Your task to perform on an android device: Go to CNN.com Image 0: 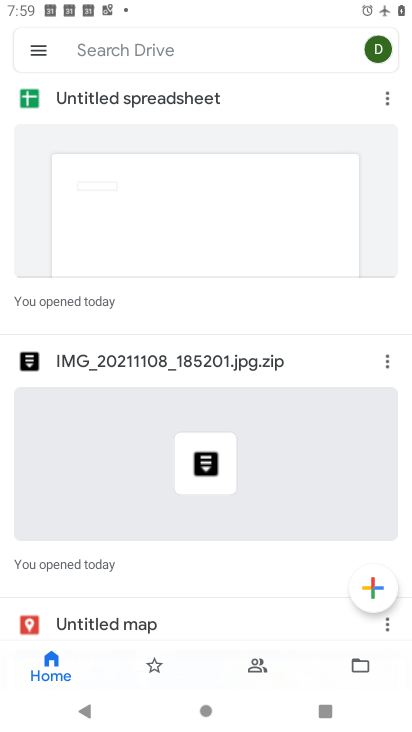
Step 0: press home button
Your task to perform on an android device: Go to CNN.com Image 1: 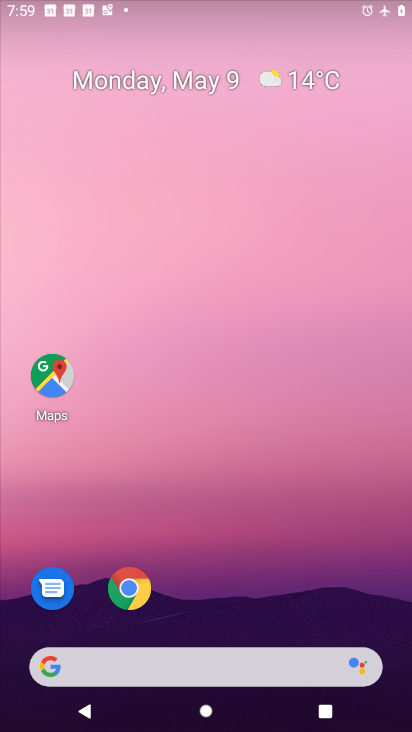
Step 1: drag from (356, 606) to (323, 1)
Your task to perform on an android device: Go to CNN.com Image 2: 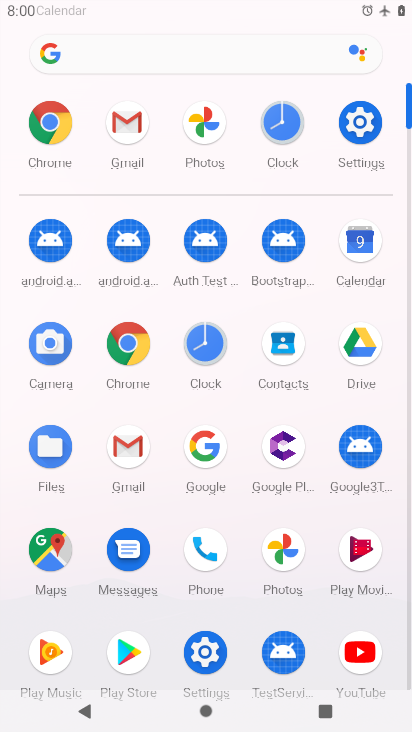
Step 2: click (120, 344)
Your task to perform on an android device: Go to CNN.com Image 3: 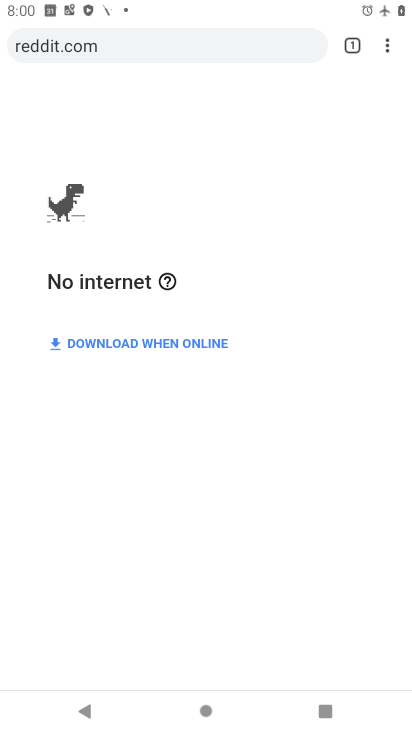
Step 3: click (320, 44)
Your task to perform on an android device: Go to CNN.com Image 4: 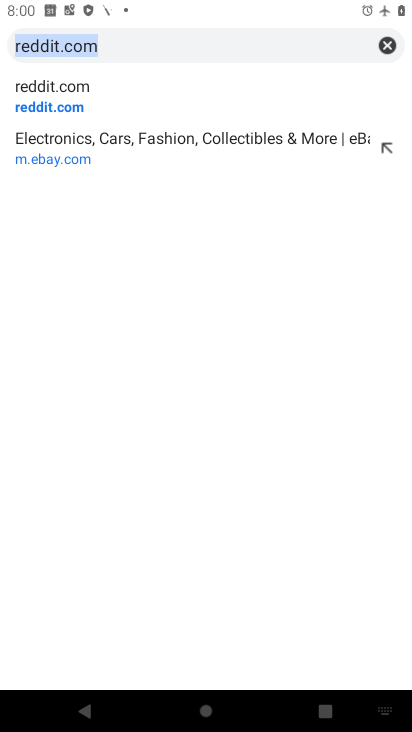
Step 4: click (244, 45)
Your task to perform on an android device: Go to CNN.com Image 5: 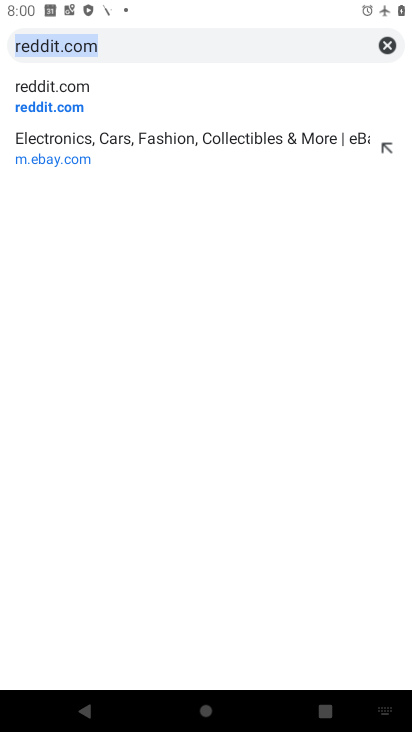
Step 5: click (244, 45)
Your task to perform on an android device: Go to CNN.com Image 6: 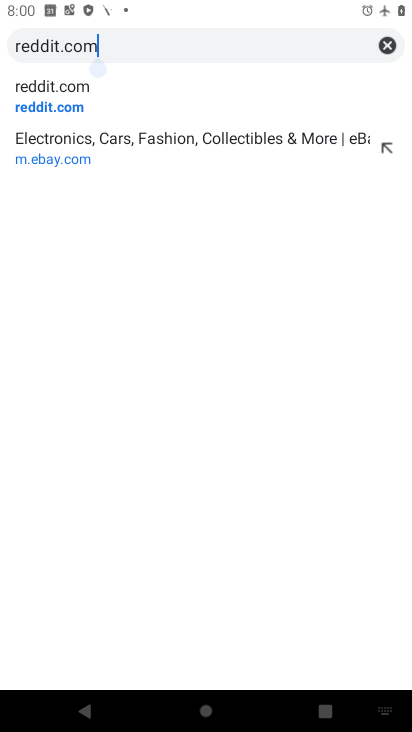
Step 6: click (386, 46)
Your task to perform on an android device: Go to CNN.com Image 7: 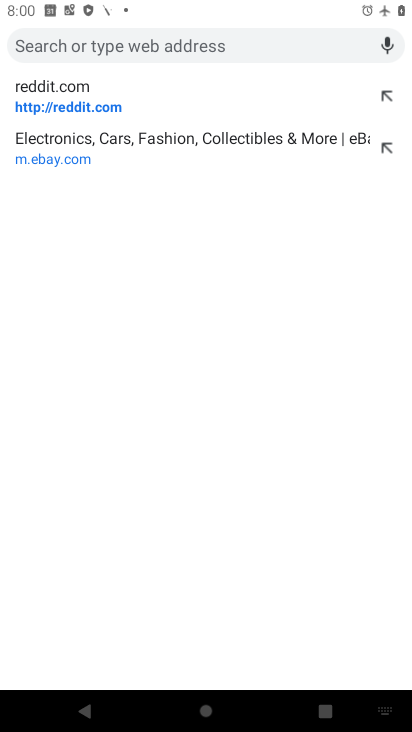
Step 7: type "cnn.com"
Your task to perform on an android device: Go to CNN.com Image 8: 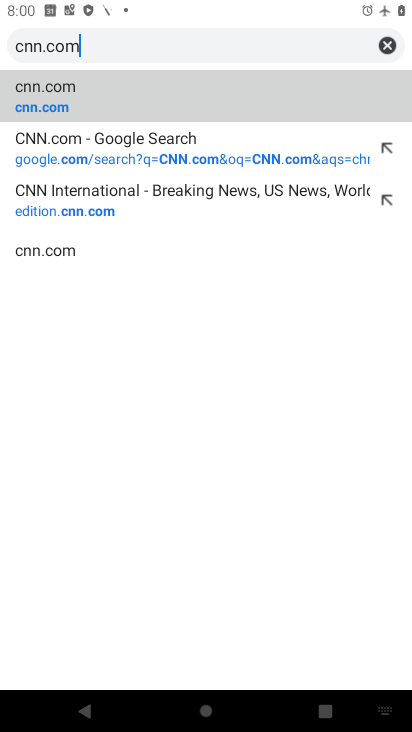
Step 8: click (269, 88)
Your task to perform on an android device: Go to CNN.com Image 9: 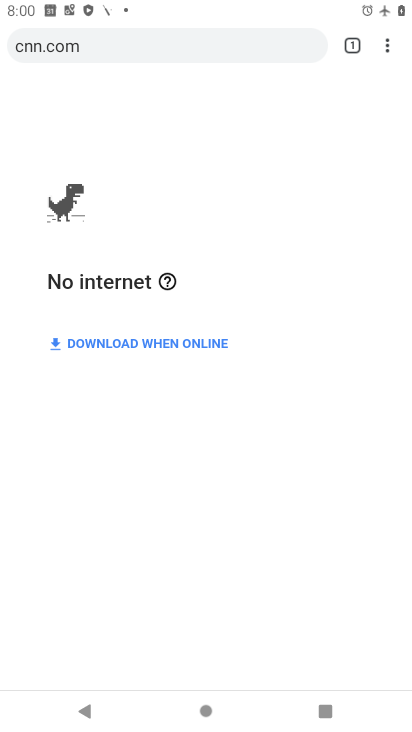
Step 9: task complete